Your task to perform on an android device: turn on data saver in the chrome app Image 0: 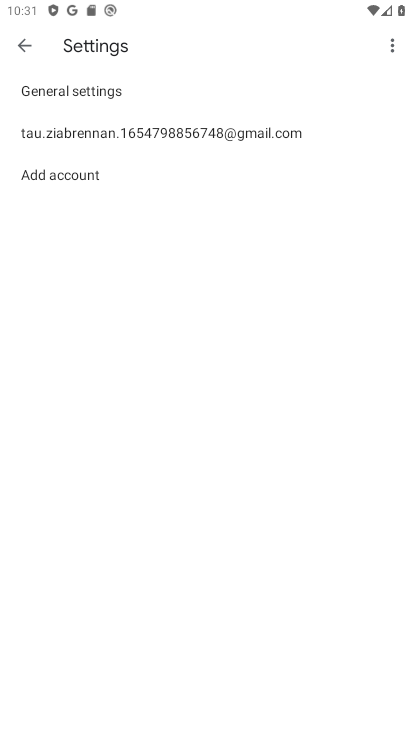
Step 0: press home button
Your task to perform on an android device: turn on data saver in the chrome app Image 1: 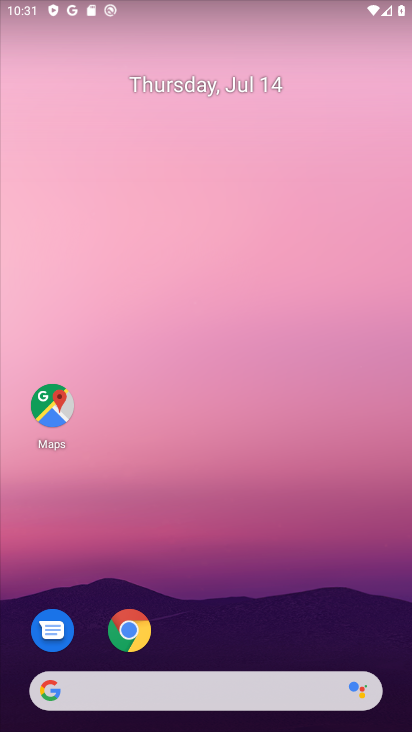
Step 1: drag from (243, 595) to (167, 23)
Your task to perform on an android device: turn on data saver in the chrome app Image 2: 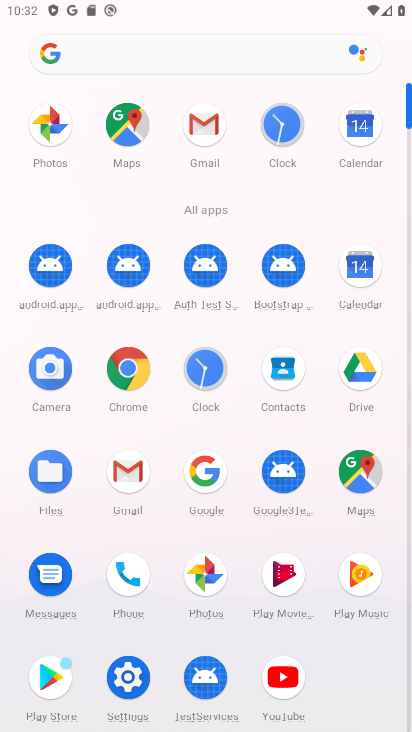
Step 2: click (129, 354)
Your task to perform on an android device: turn on data saver in the chrome app Image 3: 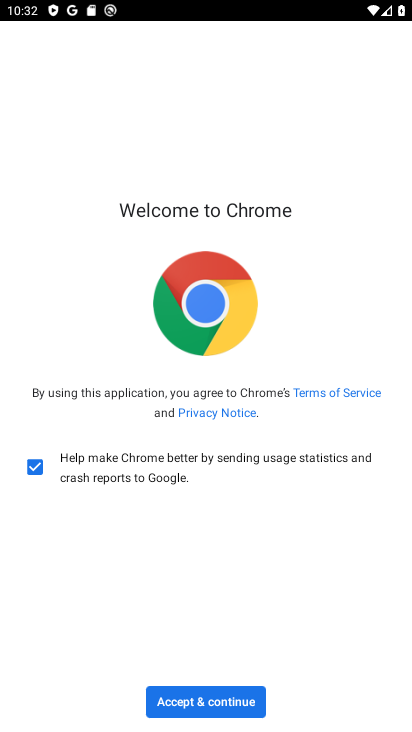
Step 3: click (210, 691)
Your task to perform on an android device: turn on data saver in the chrome app Image 4: 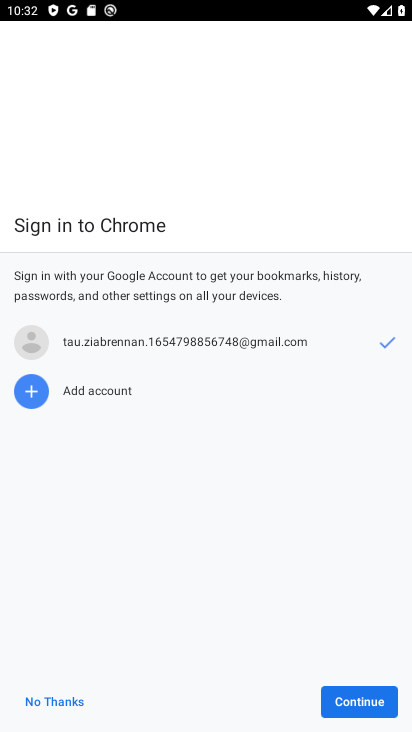
Step 4: click (62, 668)
Your task to perform on an android device: turn on data saver in the chrome app Image 5: 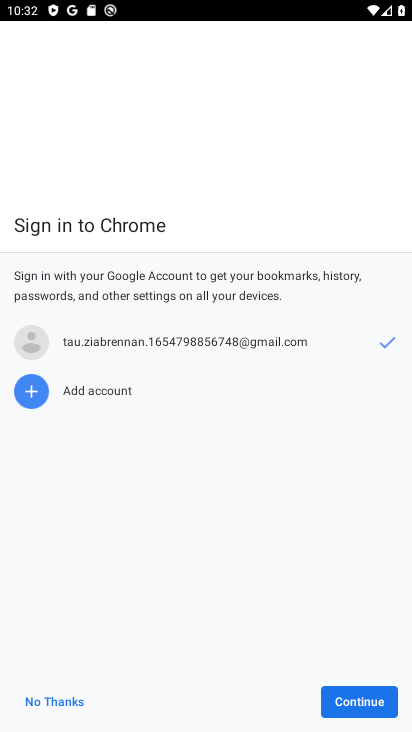
Step 5: click (78, 691)
Your task to perform on an android device: turn on data saver in the chrome app Image 6: 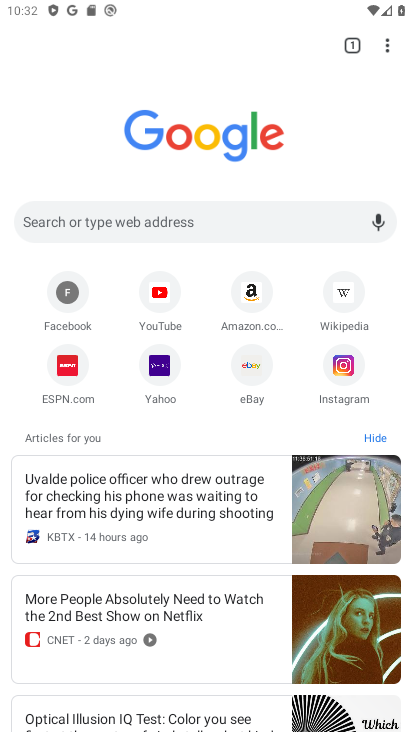
Step 6: drag from (386, 44) to (232, 395)
Your task to perform on an android device: turn on data saver in the chrome app Image 7: 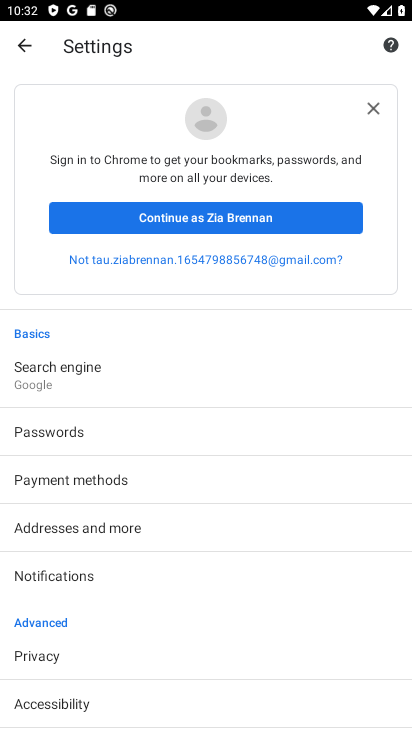
Step 7: drag from (198, 660) to (202, 305)
Your task to perform on an android device: turn on data saver in the chrome app Image 8: 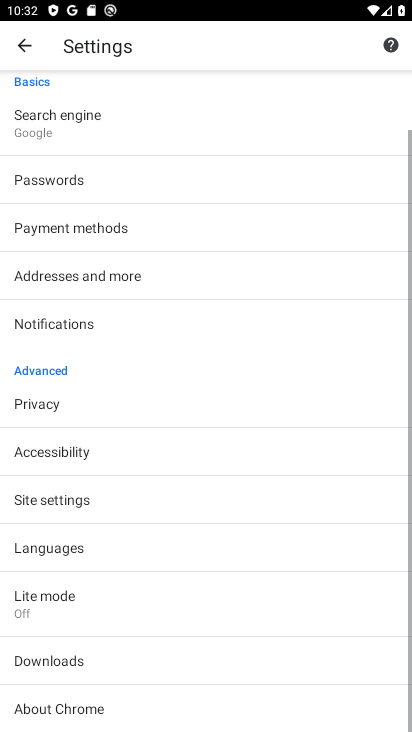
Step 8: click (81, 601)
Your task to perform on an android device: turn on data saver in the chrome app Image 9: 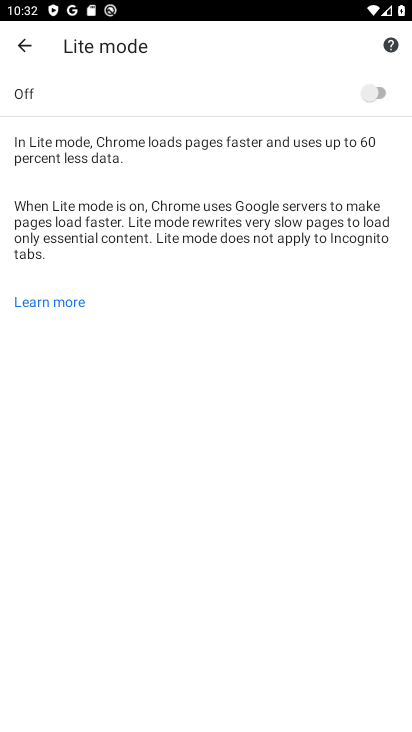
Step 9: click (374, 94)
Your task to perform on an android device: turn on data saver in the chrome app Image 10: 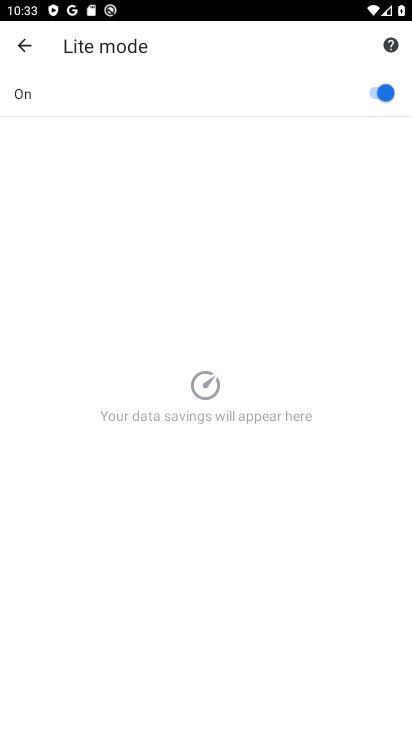
Step 10: task complete